Your task to perform on an android device: turn on airplane mode Image 0: 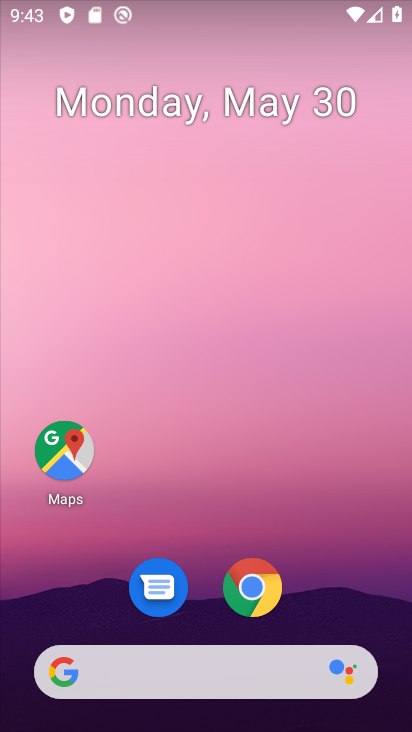
Step 0: drag from (305, 562) to (251, 26)
Your task to perform on an android device: turn on airplane mode Image 1: 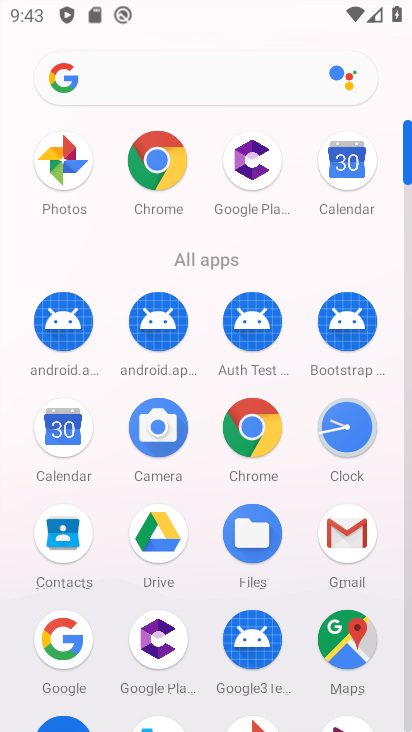
Step 1: drag from (17, 516) to (2, 180)
Your task to perform on an android device: turn on airplane mode Image 2: 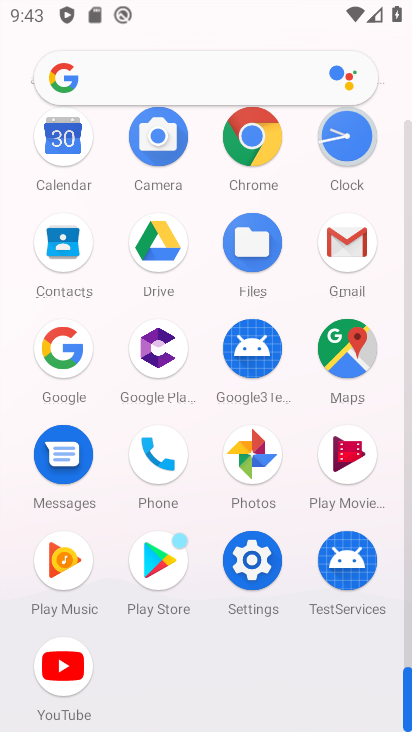
Step 2: click (249, 560)
Your task to perform on an android device: turn on airplane mode Image 3: 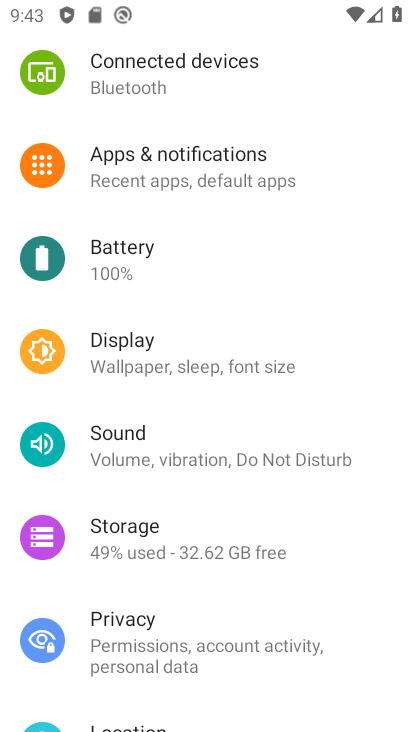
Step 3: drag from (281, 201) to (262, 619)
Your task to perform on an android device: turn on airplane mode Image 4: 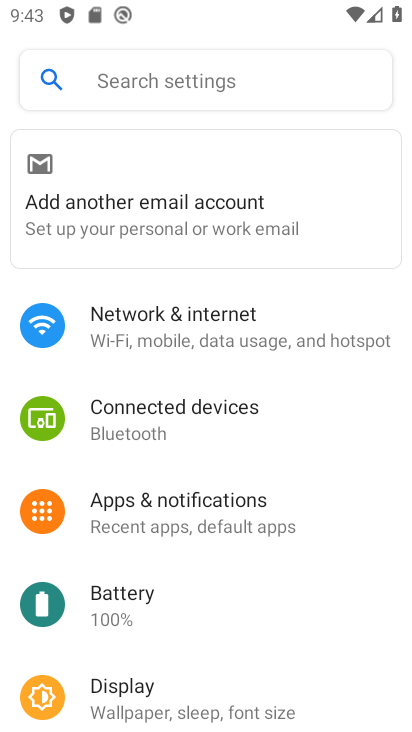
Step 4: click (223, 326)
Your task to perform on an android device: turn on airplane mode Image 5: 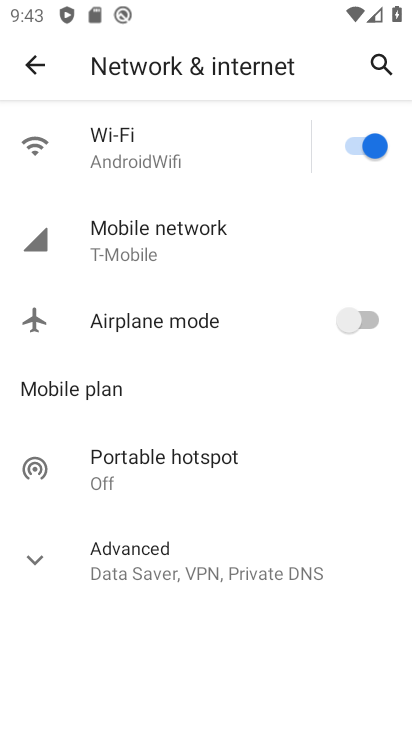
Step 5: click (43, 546)
Your task to perform on an android device: turn on airplane mode Image 6: 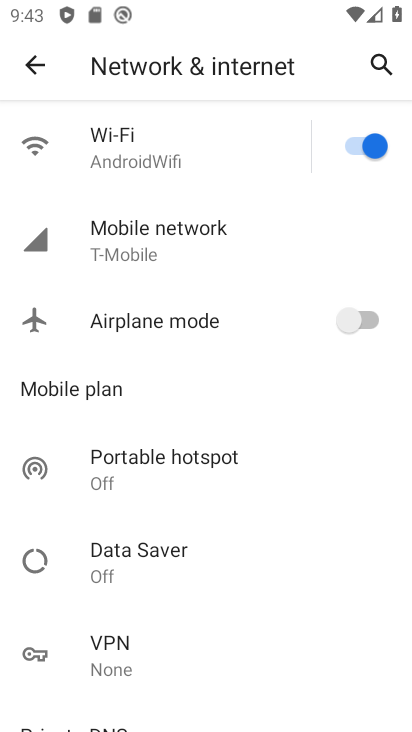
Step 6: drag from (216, 601) to (227, 190)
Your task to perform on an android device: turn on airplane mode Image 7: 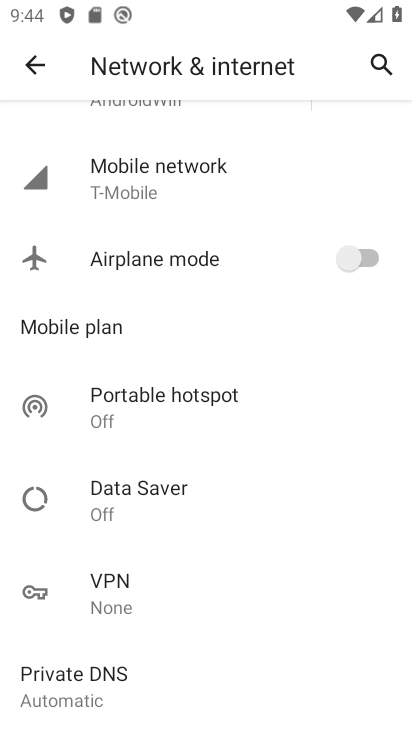
Step 7: click (357, 253)
Your task to perform on an android device: turn on airplane mode Image 8: 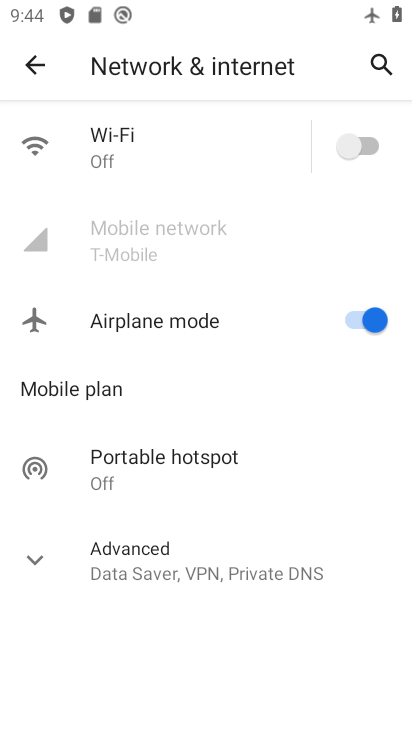
Step 8: click (34, 560)
Your task to perform on an android device: turn on airplane mode Image 9: 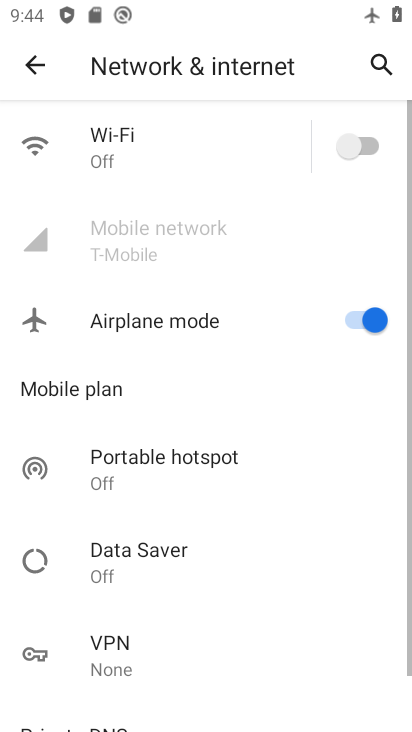
Step 9: task complete